Your task to perform on an android device: Go to Amazon Image 0: 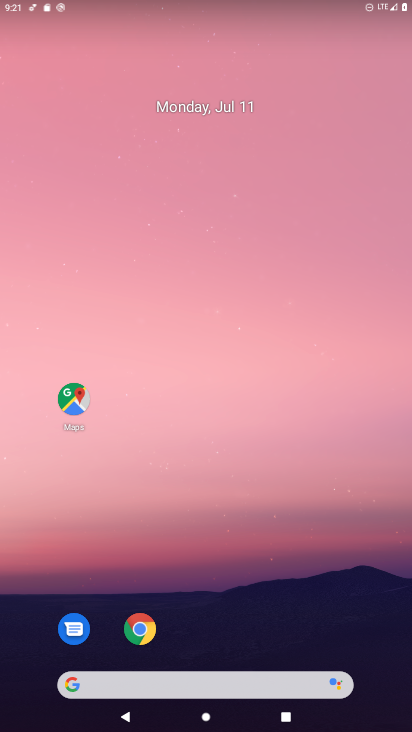
Step 0: click (137, 619)
Your task to perform on an android device: Go to Amazon Image 1: 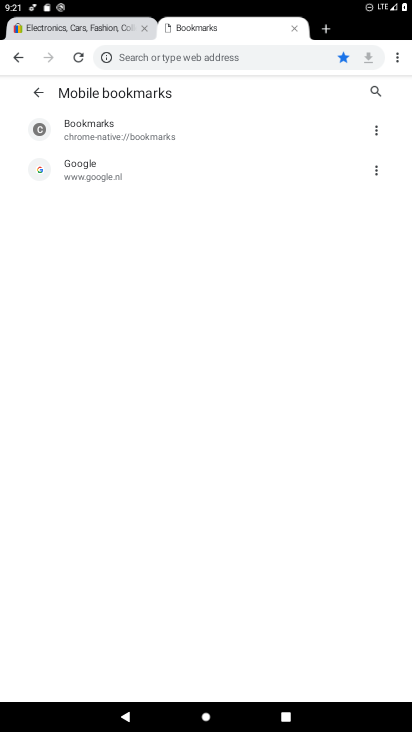
Step 1: click (17, 58)
Your task to perform on an android device: Go to Amazon Image 2: 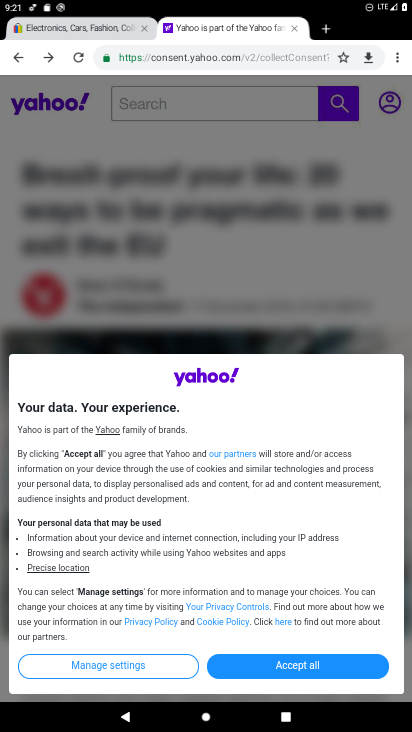
Step 2: click (17, 58)
Your task to perform on an android device: Go to Amazon Image 3: 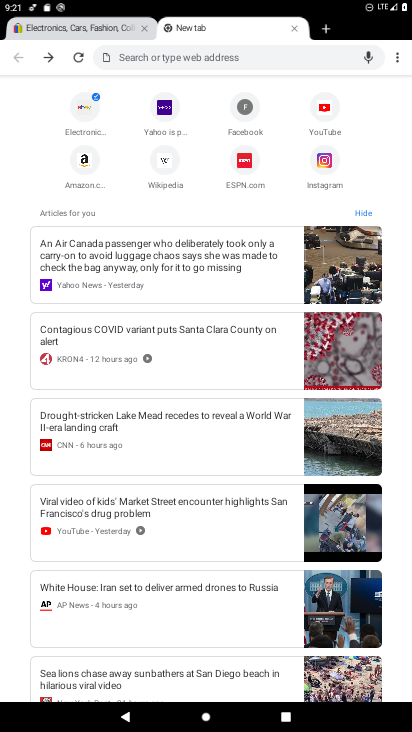
Step 3: click (88, 167)
Your task to perform on an android device: Go to Amazon Image 4: 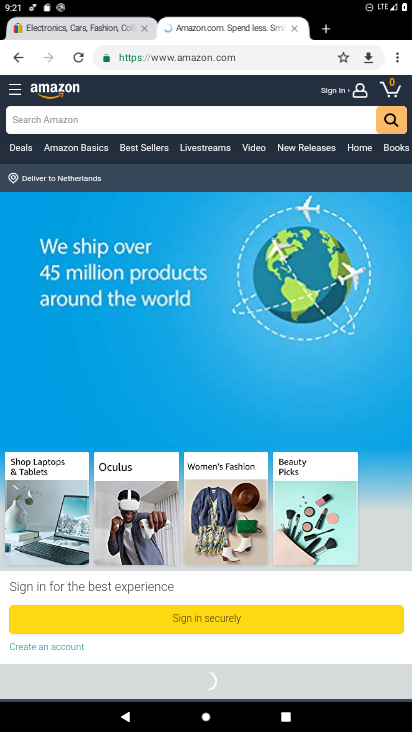
Step 4: task complete